Your task to perform on an android device: turn off picture-in-picture Image 0: 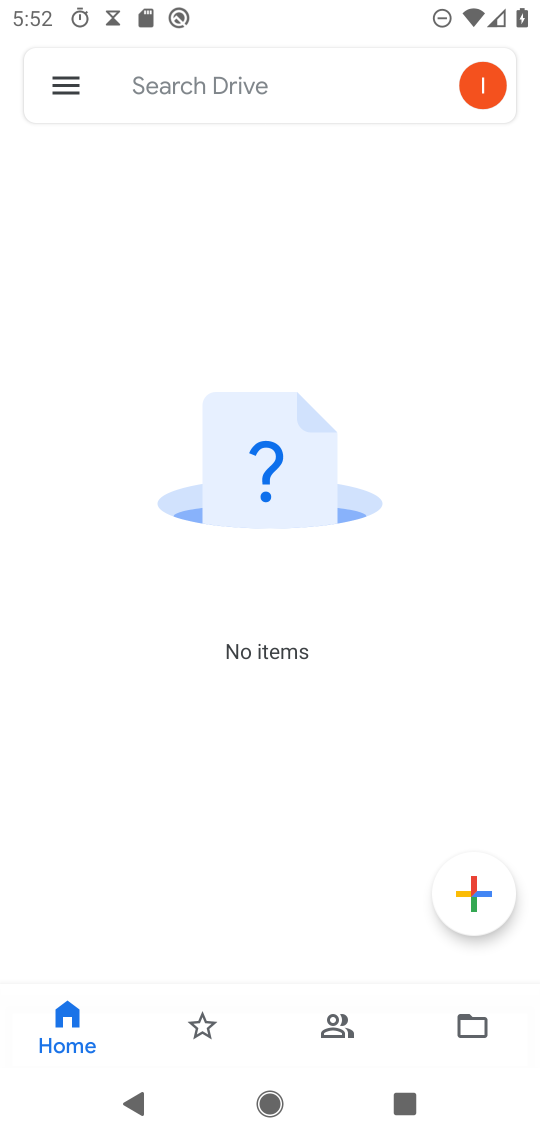
Step 0: press home button
Your task to perform on an android device: turn off picture-in-picture Image 1: 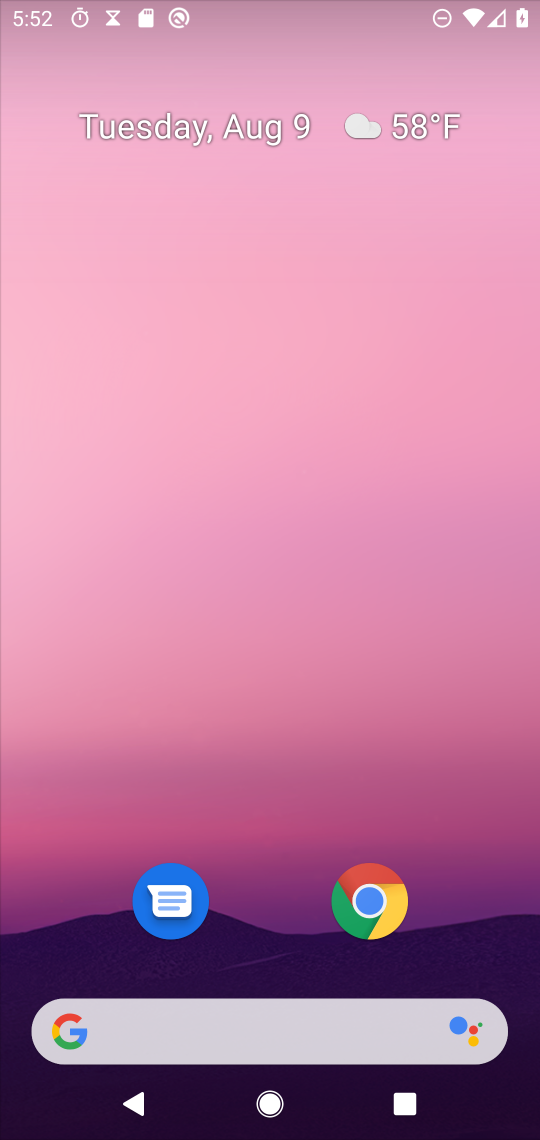
Step 1: drag from (299, 937) to (277, 653)
Your task to perform on an android device: turn off picture-in-picture Image 2: 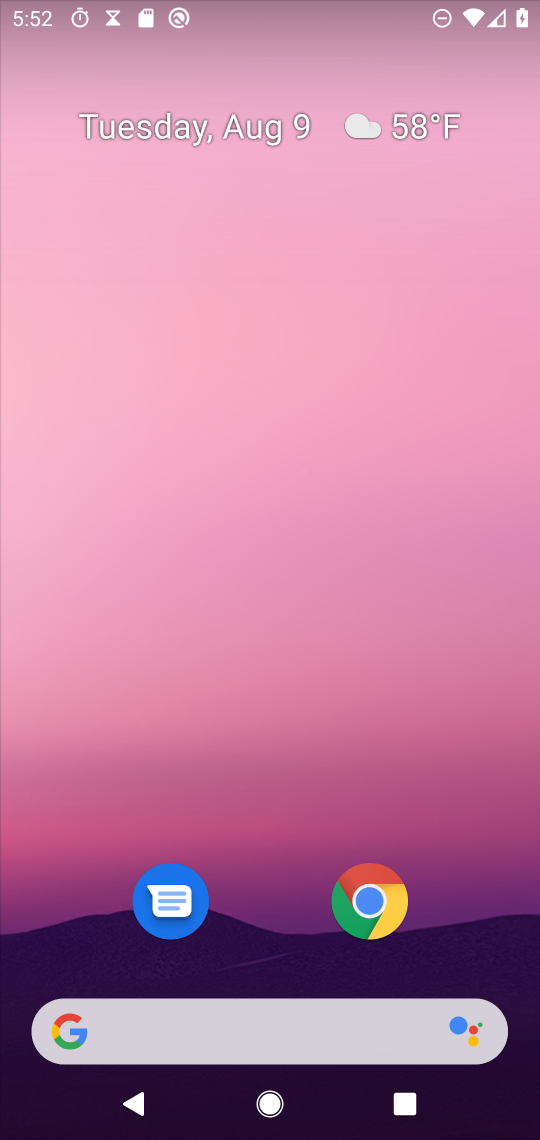
Step 2: click (380, 902)
Your task to perform on an android device: turn off picture-in-picture Image 3: 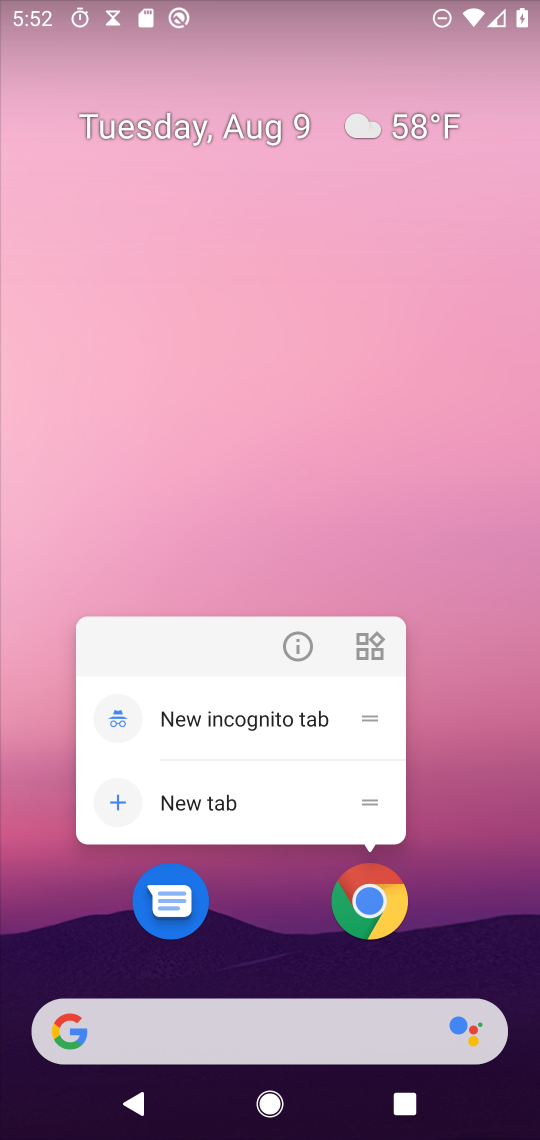
Step 3: click (289, 640)
Your task to perform on an android device: turn off picture-in-picture Image 4: 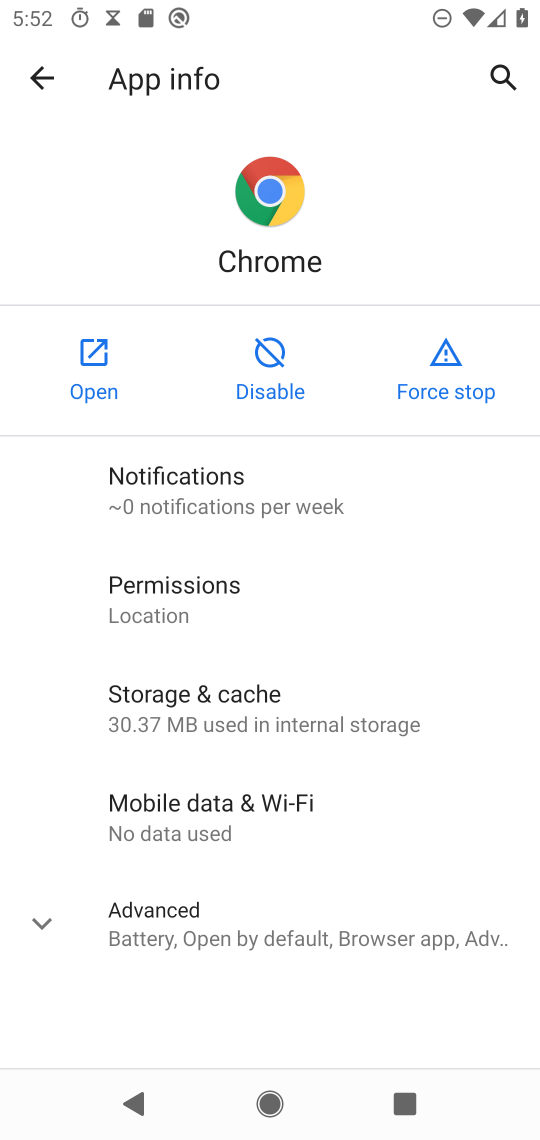
Step 4: click (207, 582)
Your task to perform on an android device: turn off picture-in-picture Image 5: 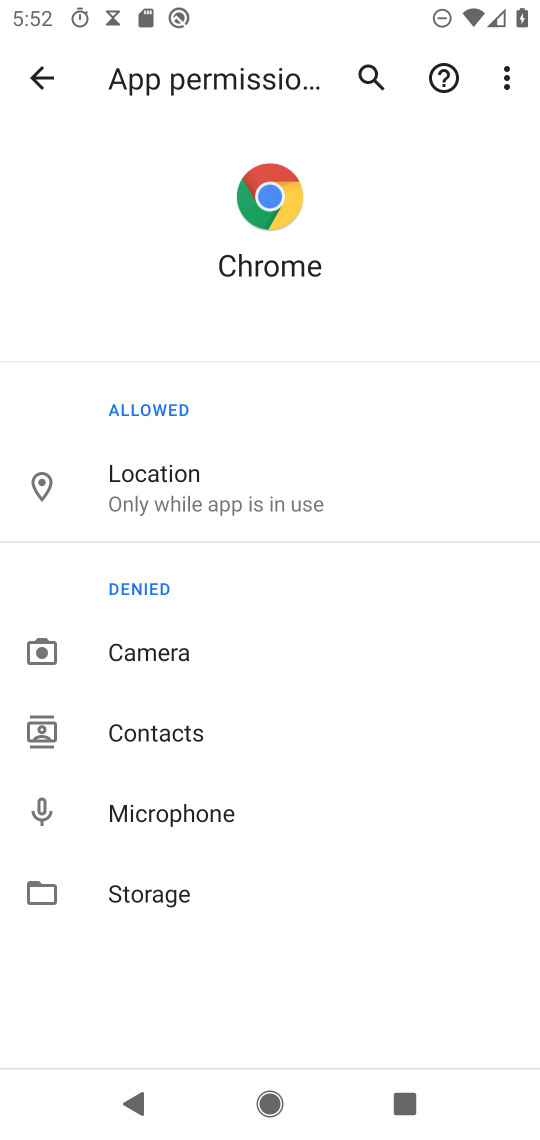
Step 5: task complete